Your task to perform on an android device: Open Chrome and go to settings Image 0: 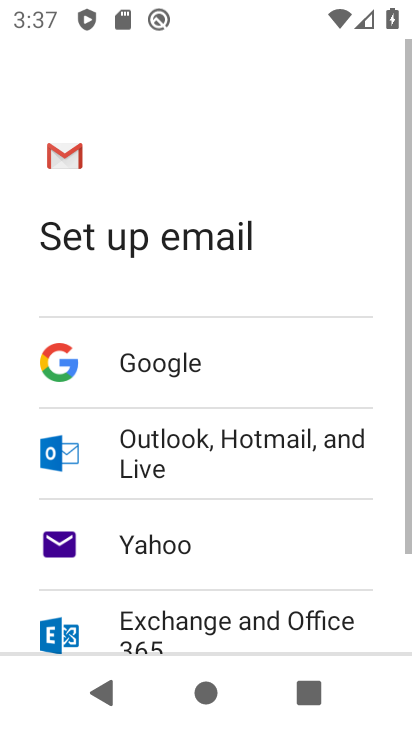
Step 0: press home button
Your task to perform on an android device: Open Chrome and go to settings Image 1: 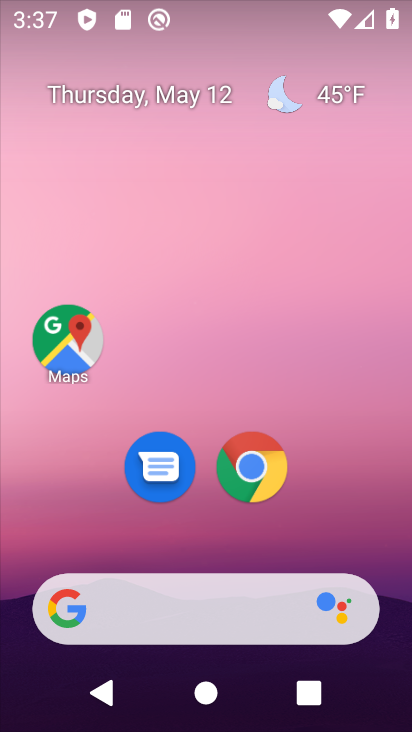
Step 1: click (274, 486)
Your task to perform on an android device: Open Chrome and go to settings Image 2: 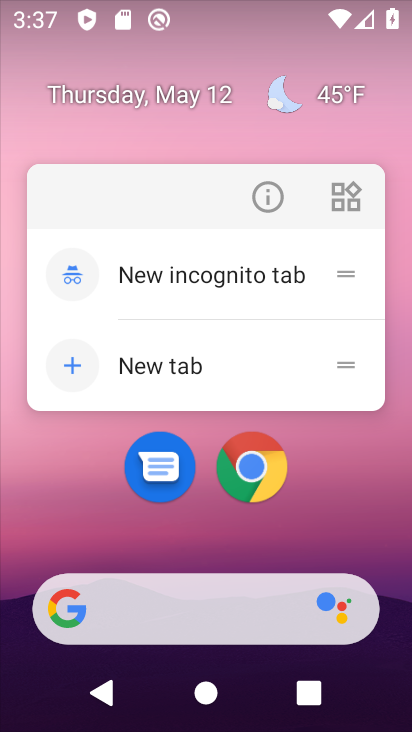
Step 2: click (247, 457)
Your task to perform on an android device: Open Chrome and go to settings Image 3: 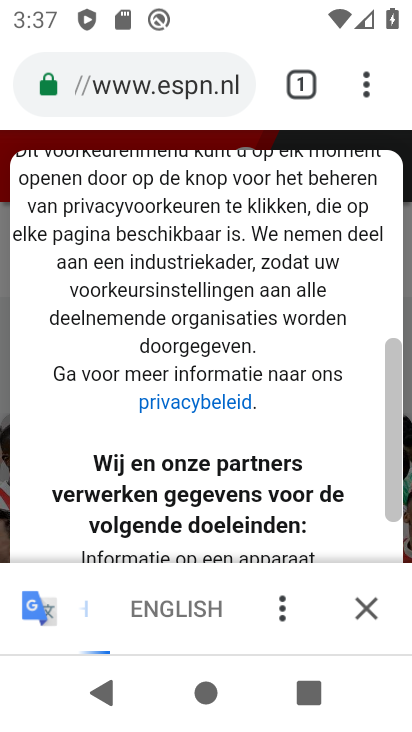
Step 3: task complete